Your task to perform on an android device: Show me recent news Image 0: 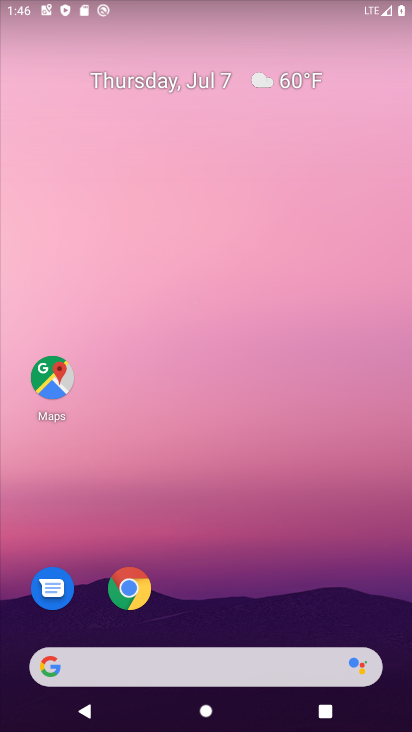
Step 0: drag from (207, 580) to (200, 228)
Your task to perform on an android device: Show me recent news Image 1: 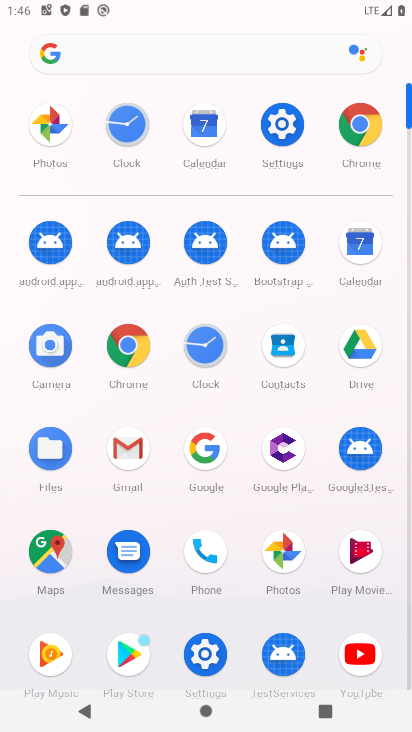
Step 1: click (362, 120)
Your task to perform on an android device: Show me recent news Image 2: 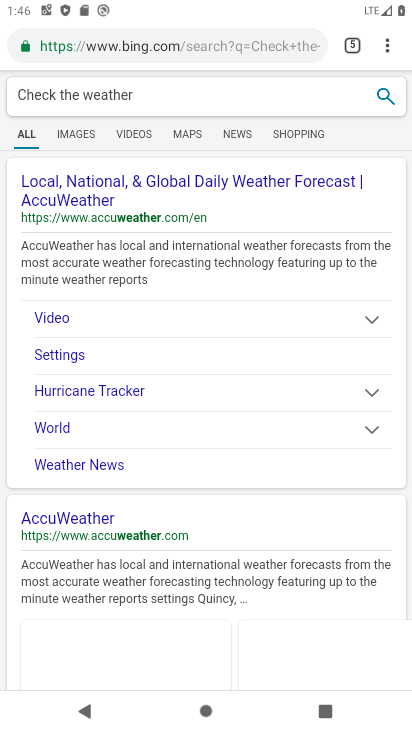
Step 2: click (393, 40)
Your task to perform on an android device: Show me recent news Image 3: 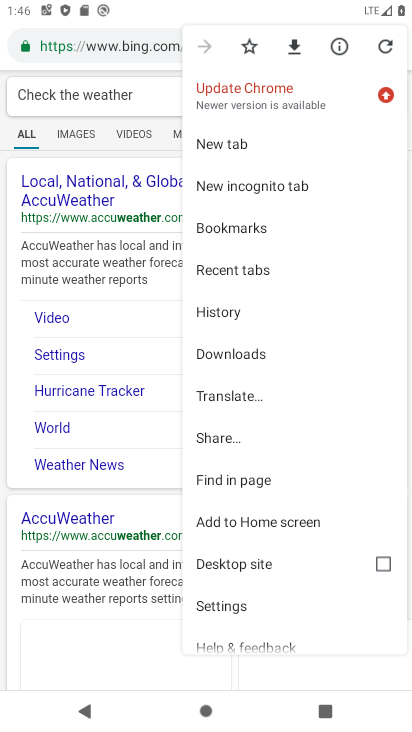
Step 3: click (257, 133)
Your task to perform on an android device: Show me recent news Image 4: 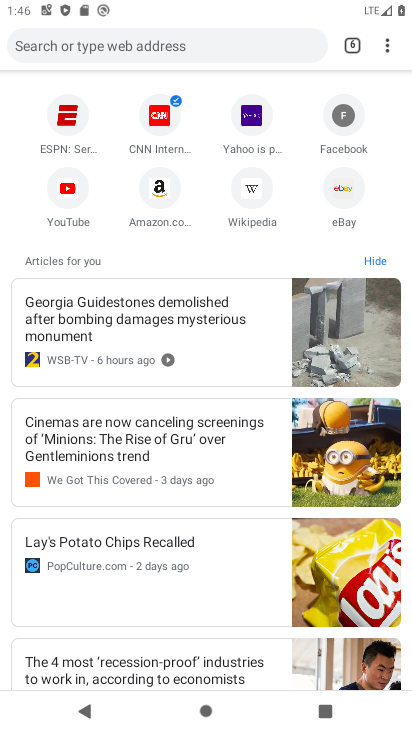
Step 4: click (144, 37)
Your task to perform on an android device: Show me recent news Image 5: 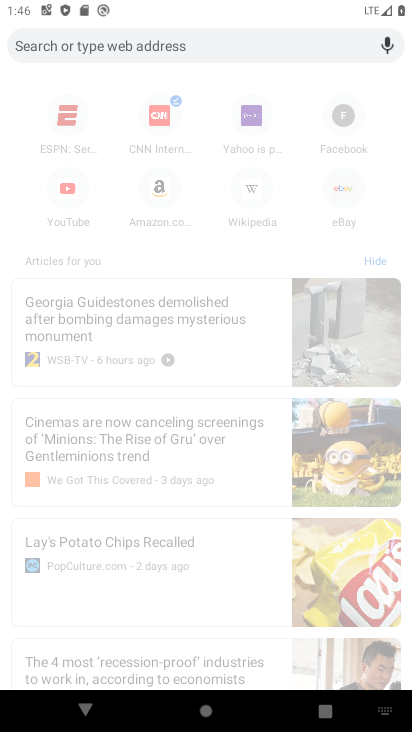
Step 5: type "Show me recent news "
Your task to perform on an android device: Show me recent news Image 6: 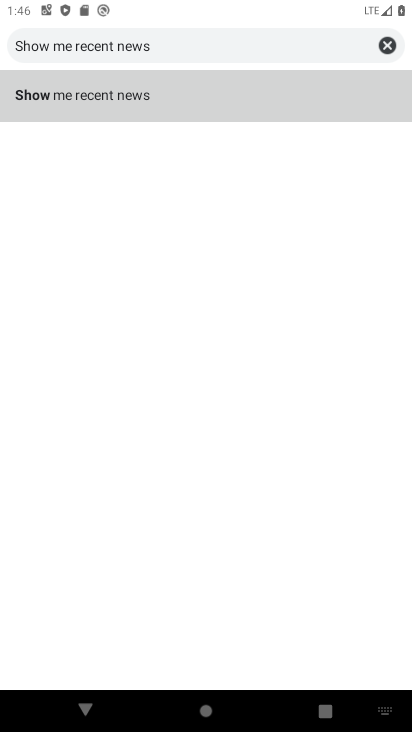
Step 6: click (139, 90)
Your task to perform on an android device: Show me recent news Image 7: 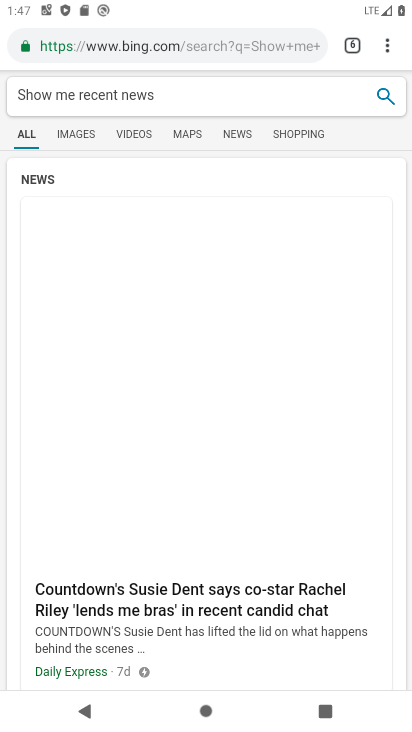
Step 7: task complete